Your task to perform on an android device: Open the Play Movies app and select the watchlist tab. Image 0: 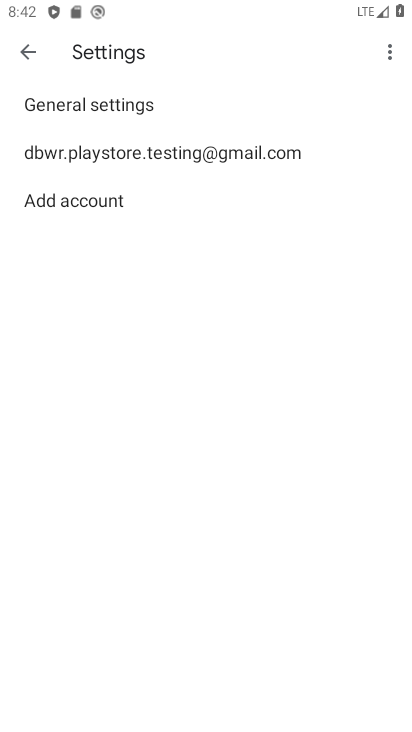
Step 0: press back button
Your task to perform on an android device: Open the Play Movies app and select the watchlist tab. Image 1: 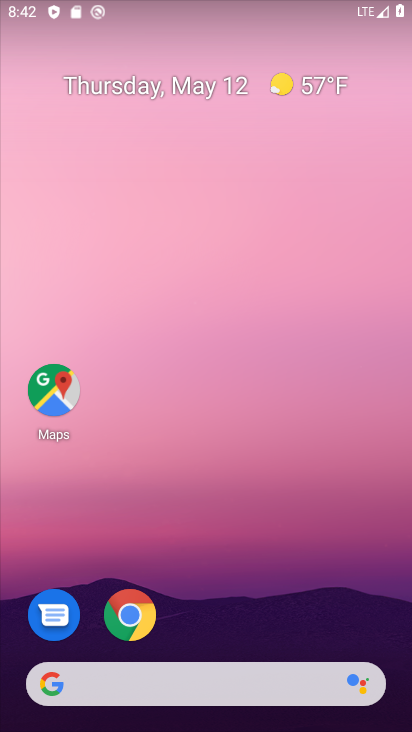
Step 1: drag from (353, 554) to (283, 59)
Your task to perform on an android device: Open the Play Movies app and select the watchlist tab. Image 2: 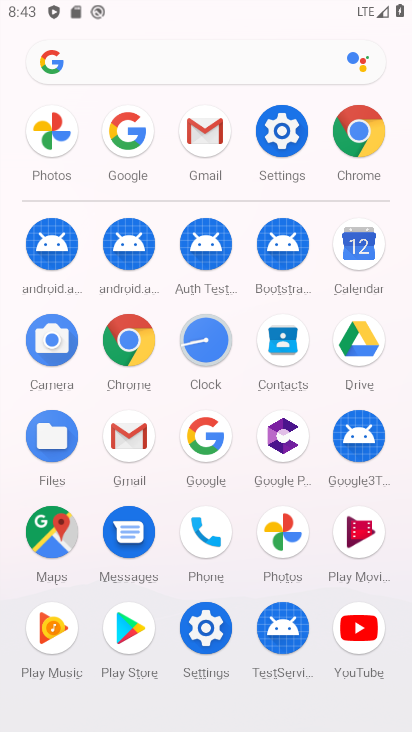
Step 2: drag from (6, 570) to (293, 56)
Your task to perform on an android device: Open the Play Movies app and select the watchlist tab. Image 3: 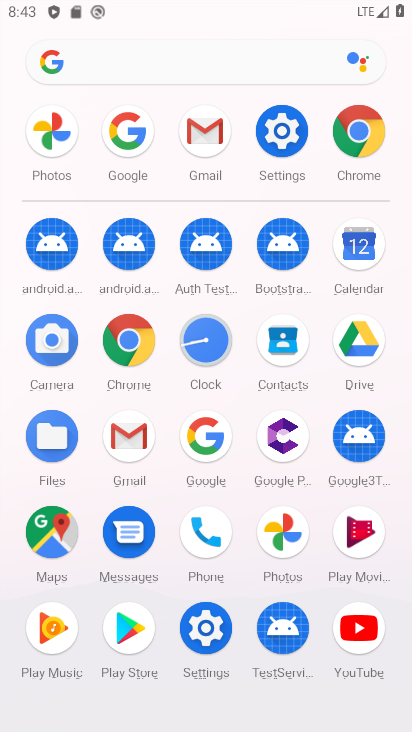
Step 3: click (355, 534)
Your task to perform on an android device: Open the Play Movies app and select the watchlist tab. Image 4: 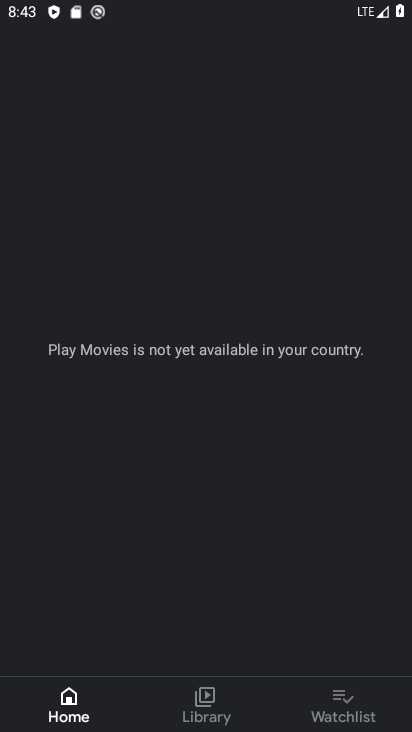
Step 4: click (330, 681)
Your task to perform on an android device: Open the Play Movies app and select the watchlist tab. Image 5: 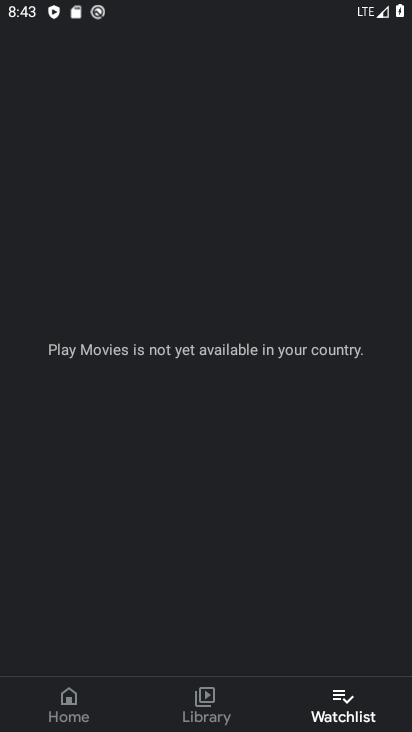
Step 5: task complete